Your task to perform on an android device: open wifi settings Image 0: 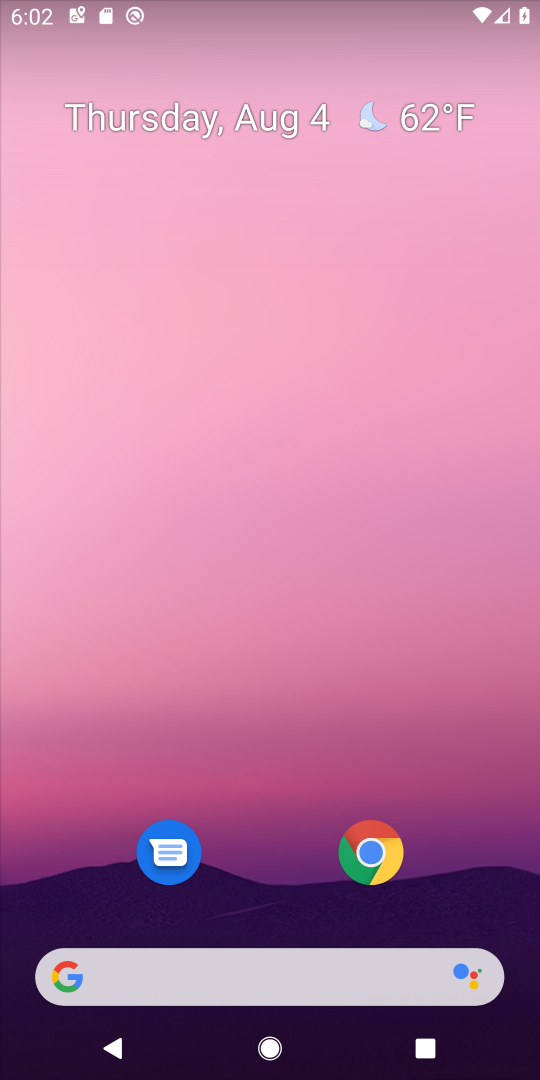
Step 0: drag from (302, 921) to (290, 126)
Your task to perform on an android device: open wifi settings Image 1: 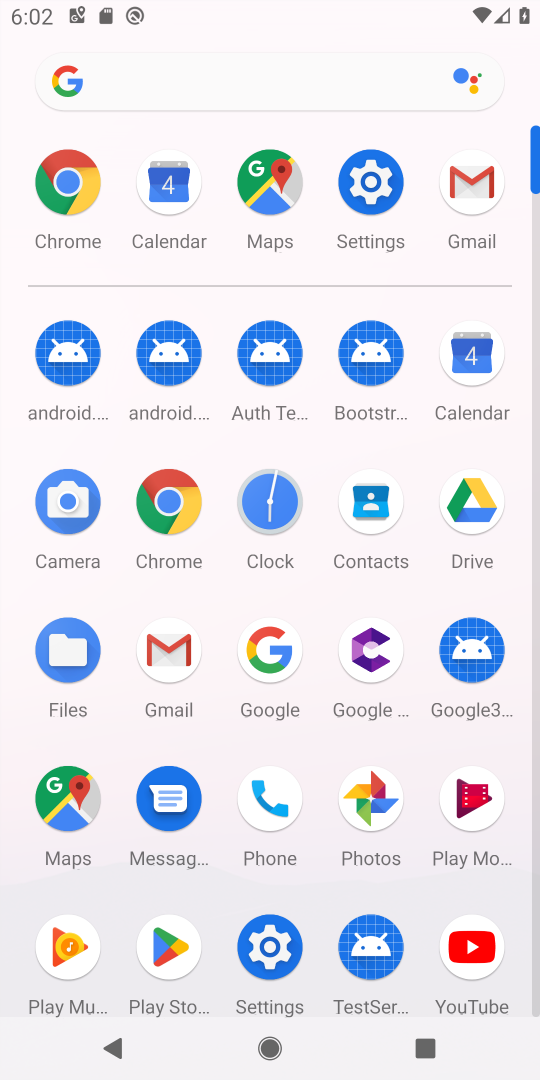
Step 1: click (363, 179)
Your task to perform on an android device: open wifi settings Image 2: 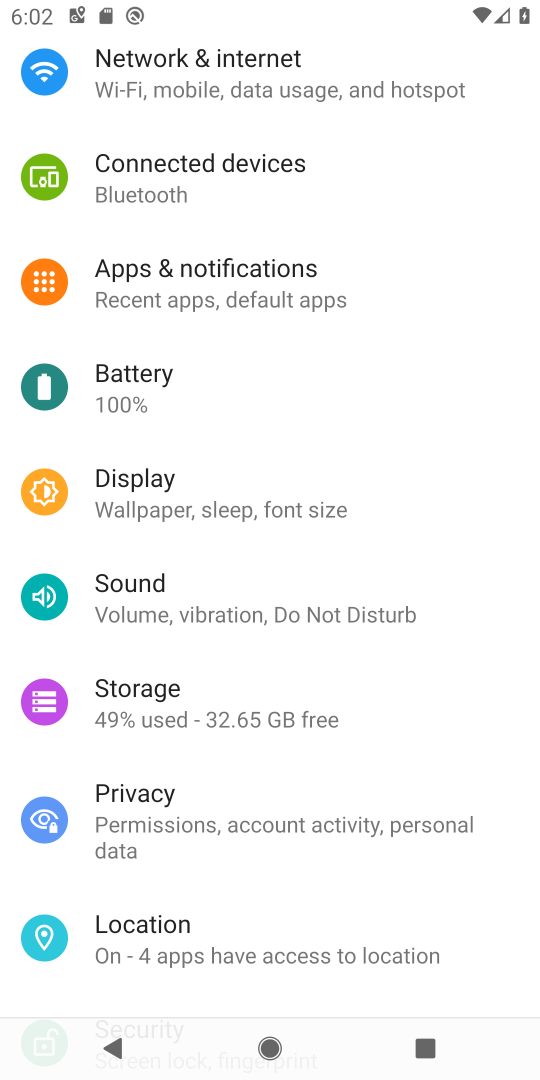
Step 2: drag from (246, 149) to (188, 995)
Your task to perform on an android device: open wifi settings Image 3: 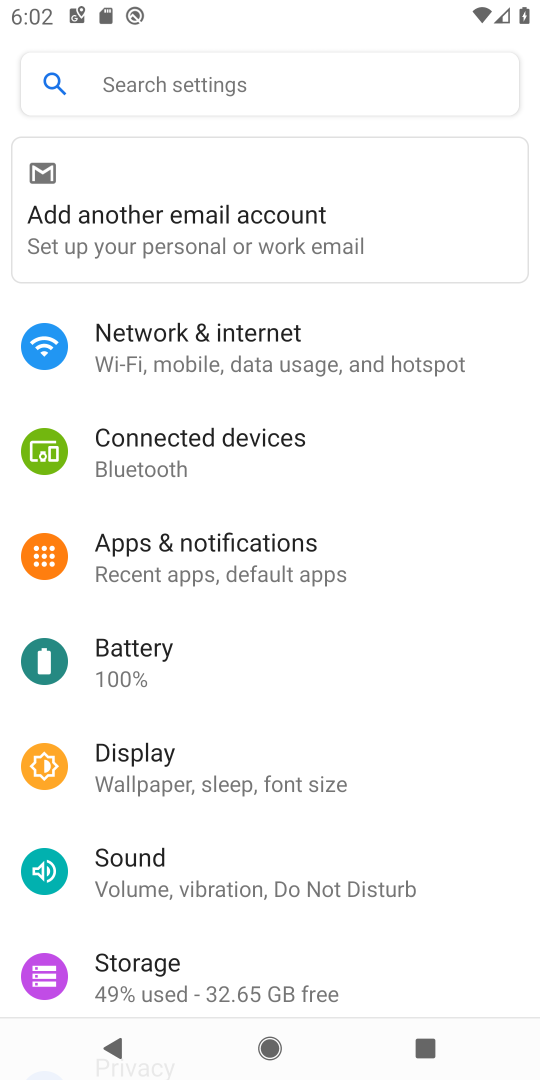
Step 3: click (186, 353)
Your task to perform on an android device: open wifi settings Image 4: 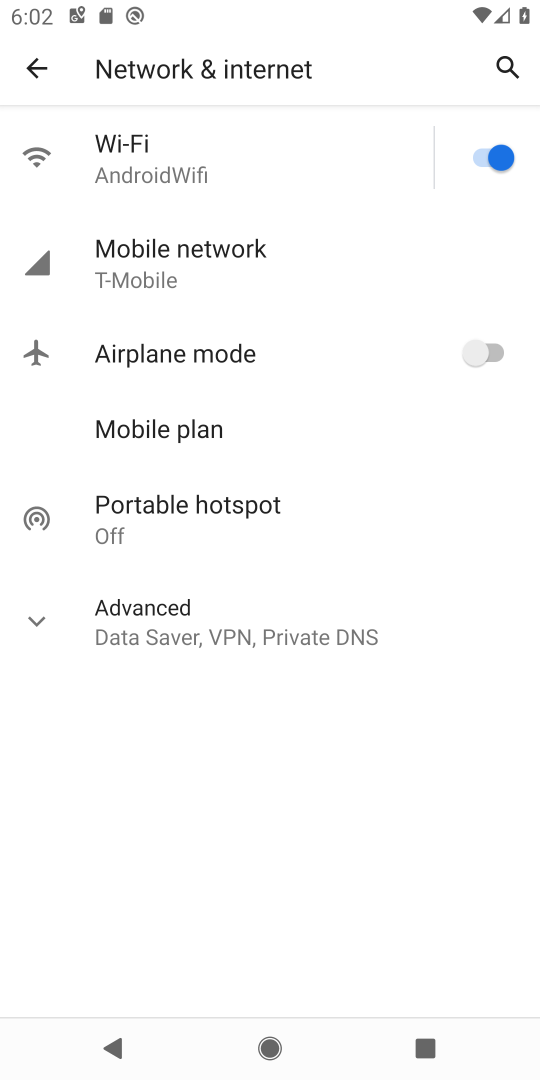
Step 4: click (120, 153)
Your task to perform on an android device: open wifi settings Image 5: 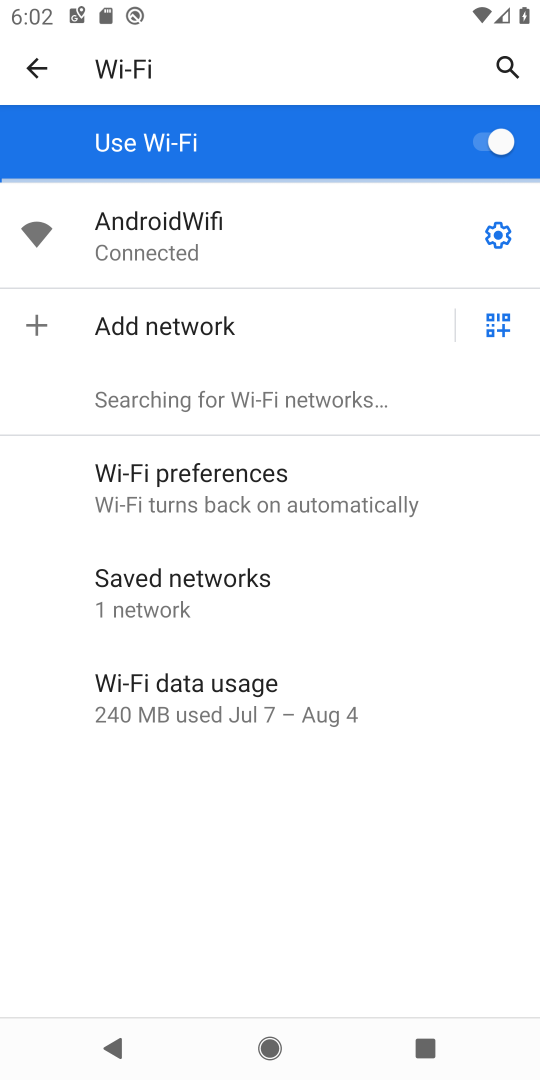
Step 5: task complete